Your task to perform on an android device: When is my next meeting? Image 0: 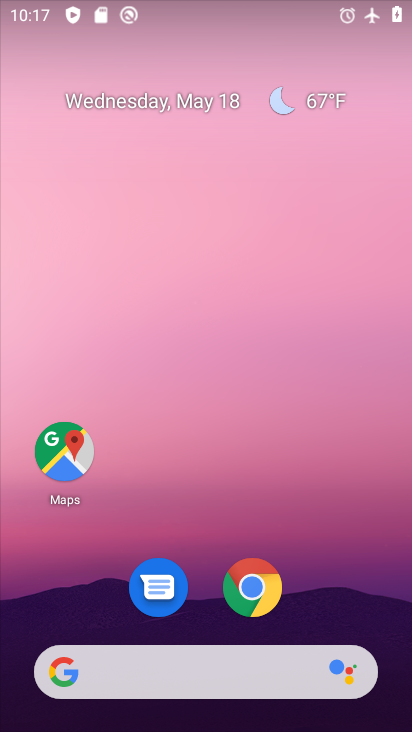
Step 0: drag from (345, 555) to (325, 147)
Your task to perform on an android device: When is my next meeting? Image 1: 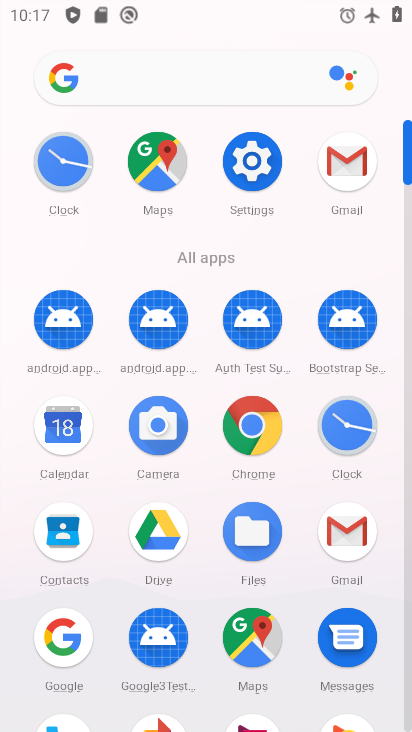
Step 1: click (48, 433)
Your task to perform on an android device: When is my next meeting? Image 2: 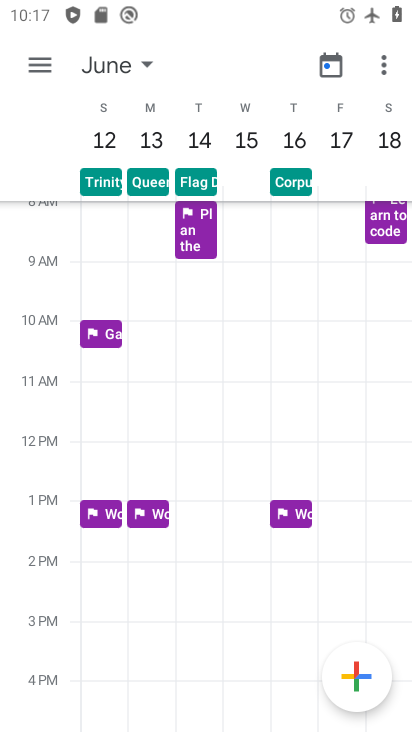
Step 2: click (33, 58)
Your task to perform on an android device: When is my next meeting? Image 3: 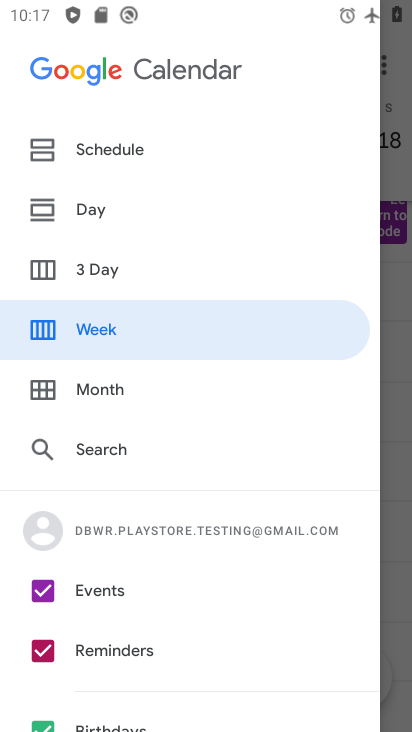
Step 3: click (161, 147)
Your task to perform on an android device: When is my next meeting? Image 4: 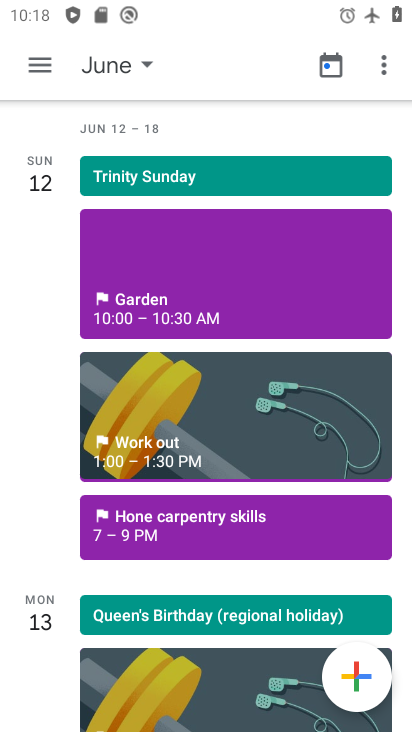
Step 4: drag from (146, 584) to (212, 146)
Your task to perform on an android device: When is my next meeting? Image 5: 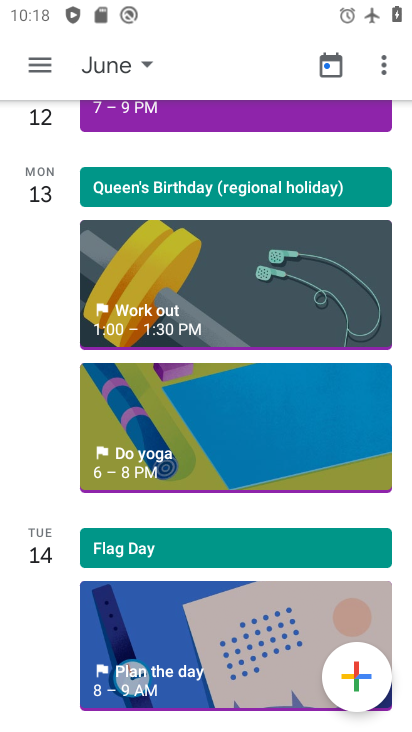
Step 5: drag from (136, 655) to (169, 306)
Your task to perform on an android device: When is my next meeting? Image 6: 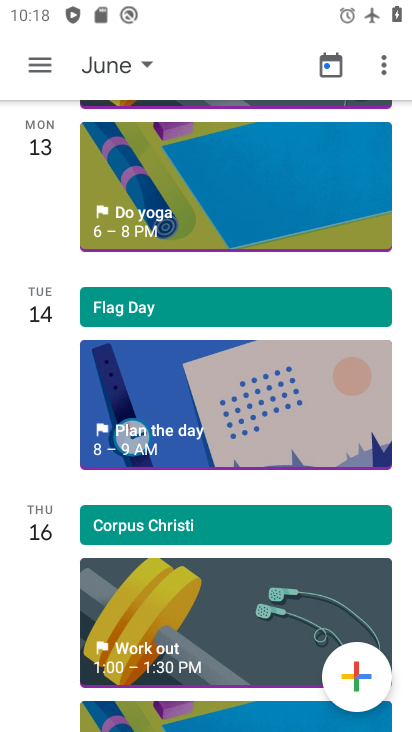
Step 6: drag from (148, 156) to (115, 407)
Your task to perform on an android device: When is my next meeting? Image 7: 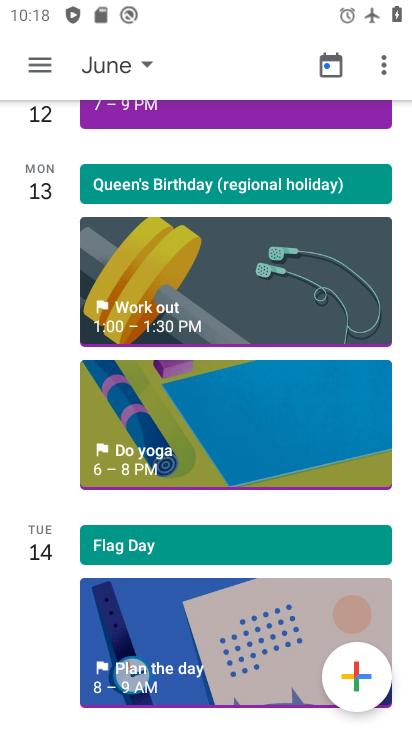
Step 7: click (110, 64)
Your task to perform on an android device: When is my next meeting? Image 8: 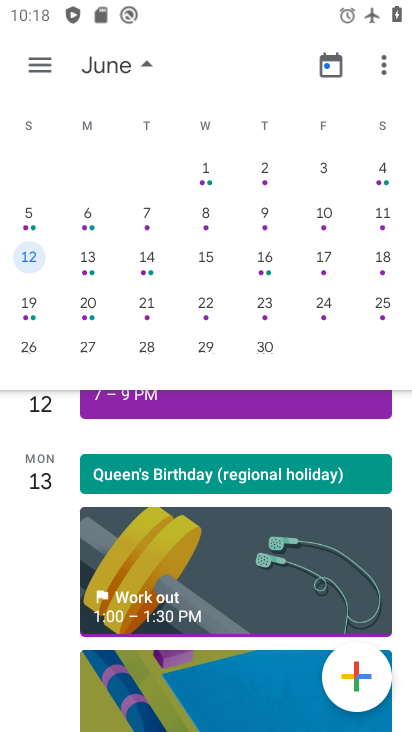
Step 8: task complete